Your task to perform on an android device: Open the calendar app, open the side menu, and click the "Day" option Image 0: 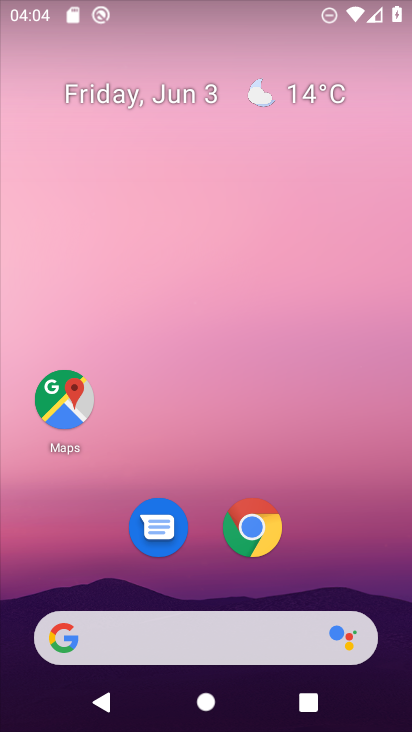
Step 0: drag from (346, 552) to (235, 0)
Your task to perform on an android device: Open the calendar app, open the side menu, and click the "Day" option Image 1: 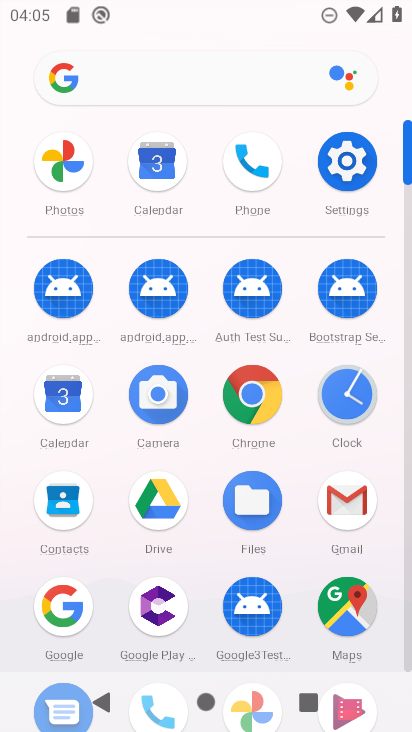
Step 1: click (66, 394)
Your task to perform on an android device: Open the calendar app, open the side menu, and click the "Day" option Image 2: 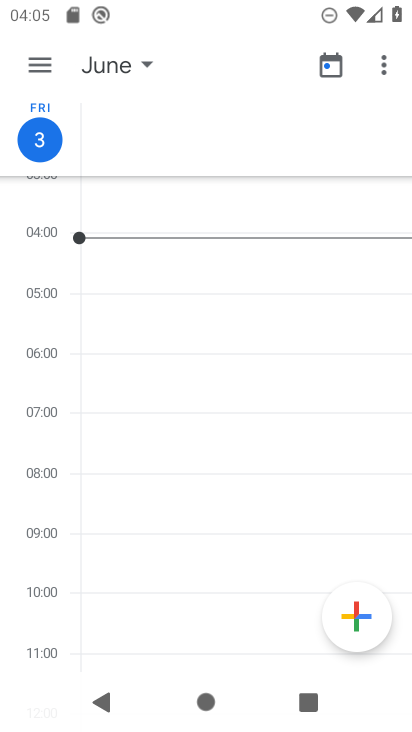
Step 2: click (337, 66)
Your task to perform on an android device: Open the calendar app, open the side menu, and click the "Day" option Image 3: 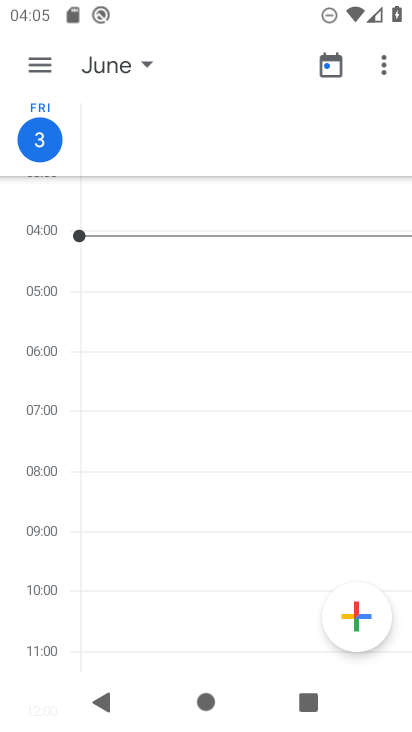
Step 3: click (335, 64)
Your task to perform on an android device: Open the calendar app, open the side menu, and click the "Day" option Image 4: 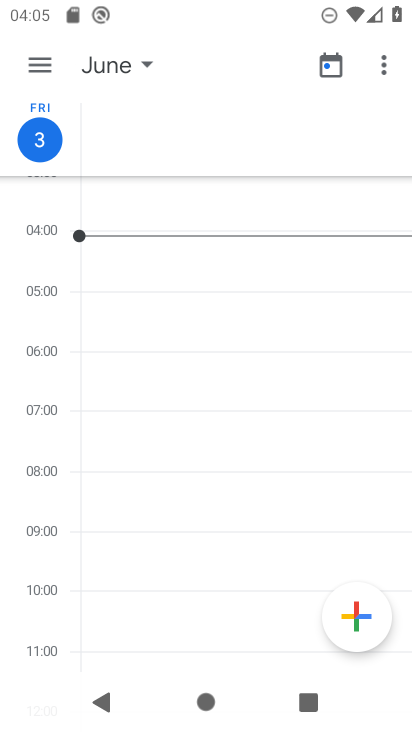
Step 4: click (43, 69)
Your task to perform on an android device: Open the calendar app, open the side menu, and click the "Day" option Image 5: 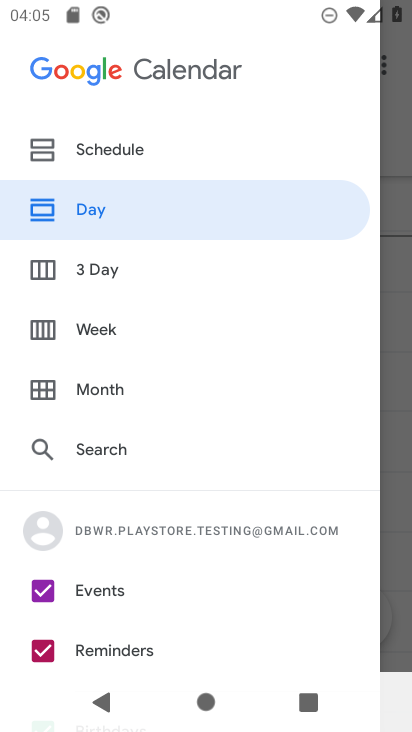
Step 5: click (107, 205)
Your task to perform on an android device: Open the calendar app, open the side menu, and click the "Day" option Image 6: 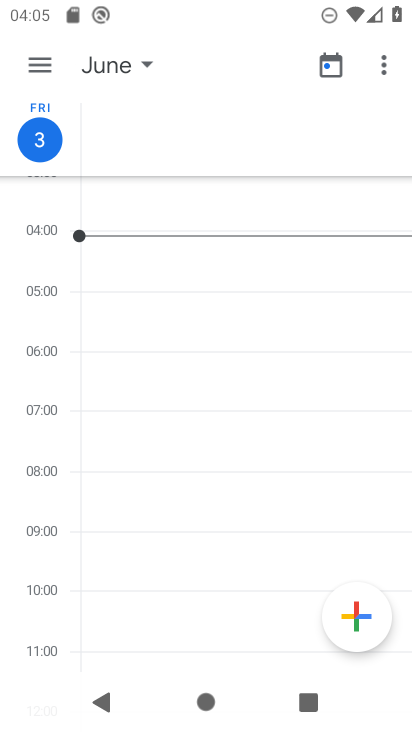
Step 6: task complete